Your task to perform on an android device: Check the weather Image 0: 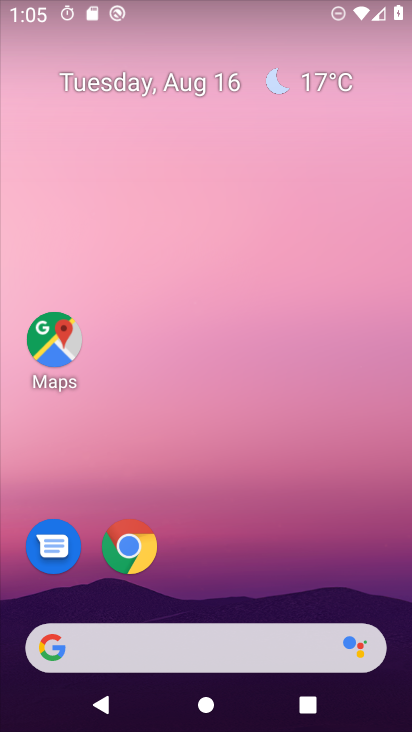
Step 0: click (279, 83)
Your task to perform on an android device: Check the weather Image 1: 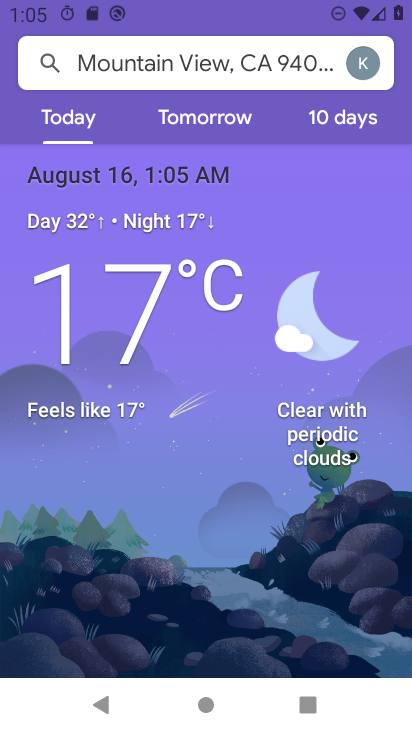
Step 1: task complete